Your task to perform on an android device: Go to CNN.com Image 0: 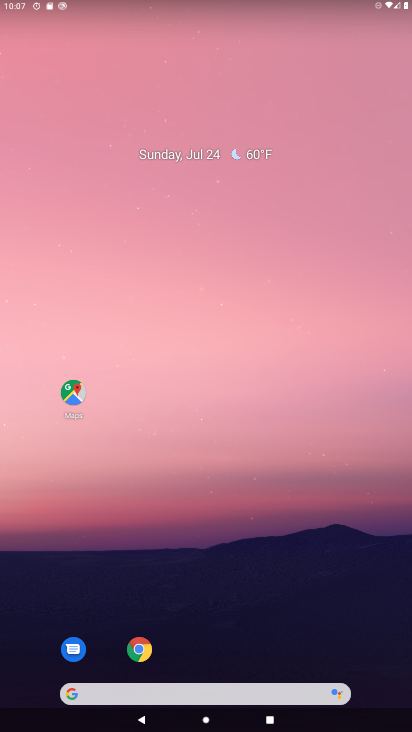
Step 0: click (133, 648)
Your task to perform on an android device: Go to CNN.com Image 1: 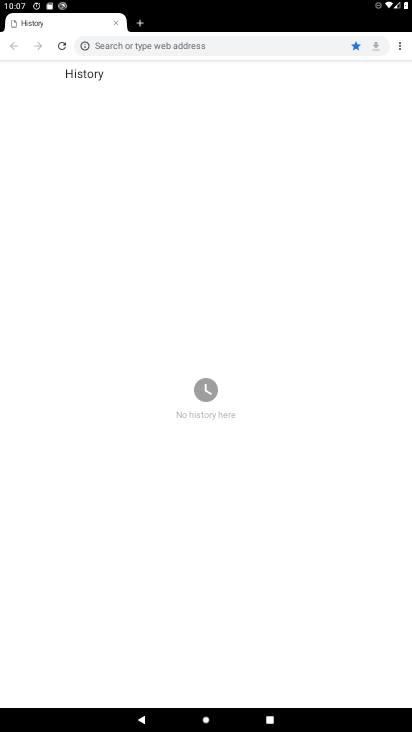
Step 1: click (292, 47)
Your task to perform on an android device: Go to CNN.com Image 2: 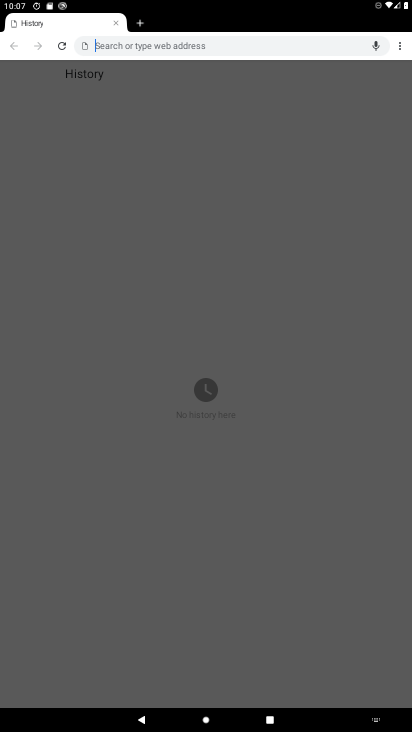
Step 2: type "cnn.com"
Your task to perform on an android device: Go to CNN.com Image 3: 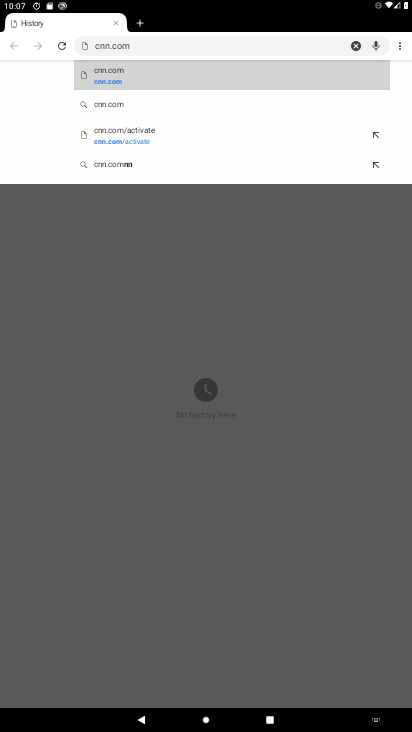
Step 3: click (169, 87)
Your task to perform on an android device: Go to CNN.com Image 4: 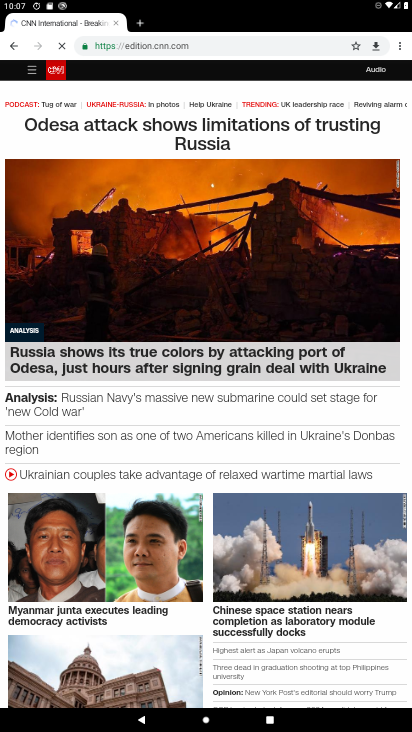
Step 4: task complete